Your task to perform on an android device: Open the web browser Image 0: 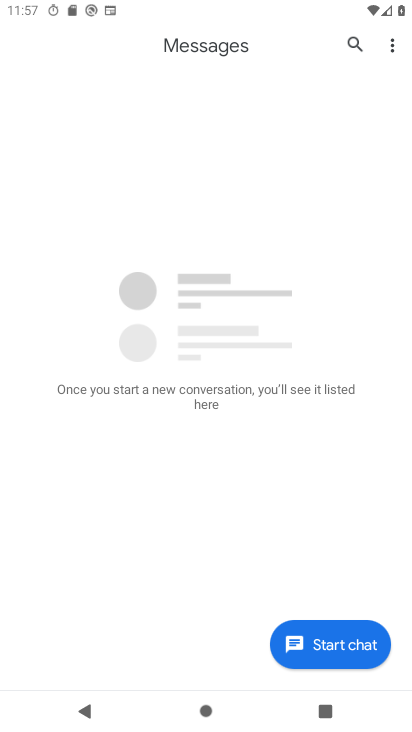
Step 0: press home button
Your task to perform on an android device: Open the web browser Image 1: 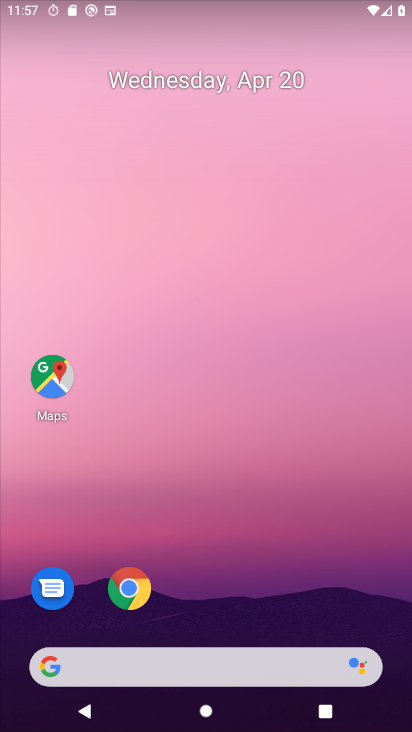
Step 1: click (125, 582)
Your task to perform on an android device: Open the web browser Image 2: 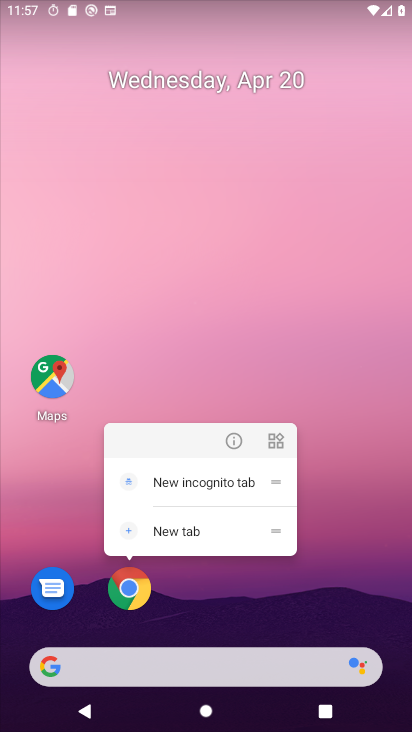
Step 2: click (127, 586)
Your task to perform on an android device: Open the web browser Image 3: 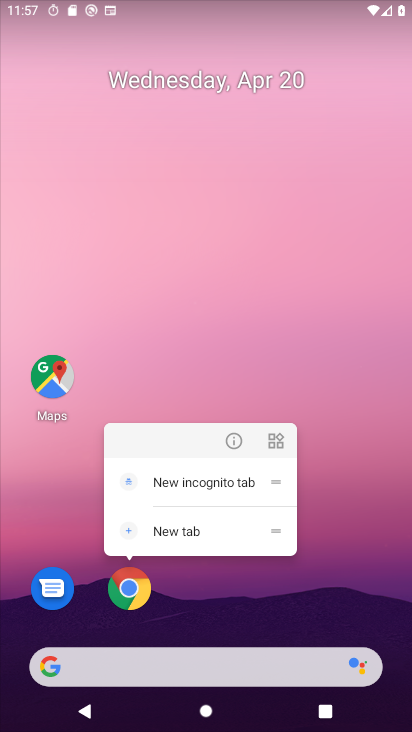
Step 3: click (129, 588)
Your task to perform on an android device: Open the web browser Image 4: 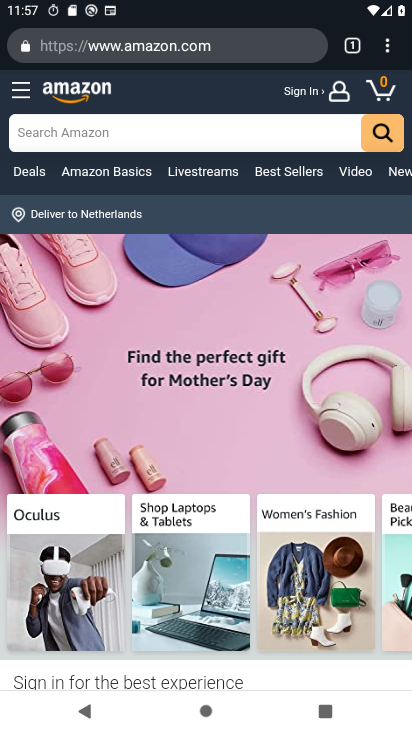
Step 4: task complete